Your task to perform on an android device: turn off javascript in the chrome app Image 0: 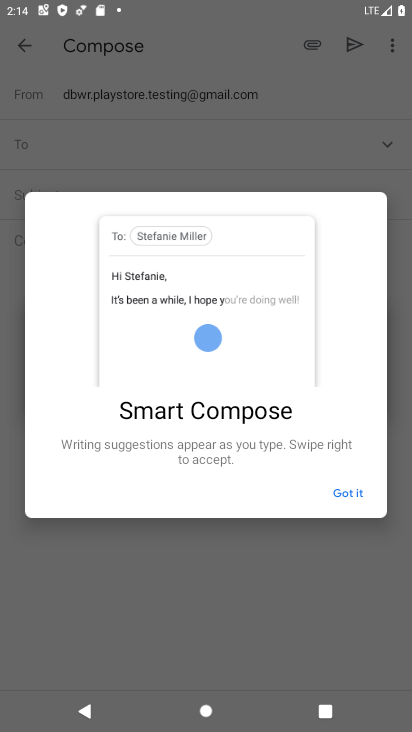
Step 0: press home button
Your task to perform on an android device: turn off javascript in the chrome app Image 1: 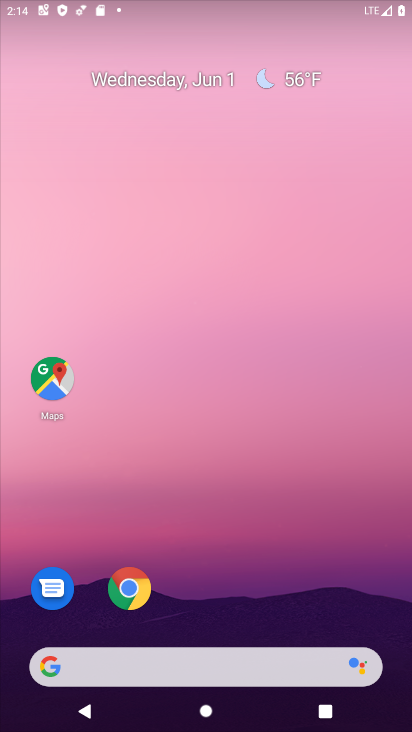
Step 1: click (155, 590)
Your task to perform on an android device: turn off javascript in the chrome app Image 2: 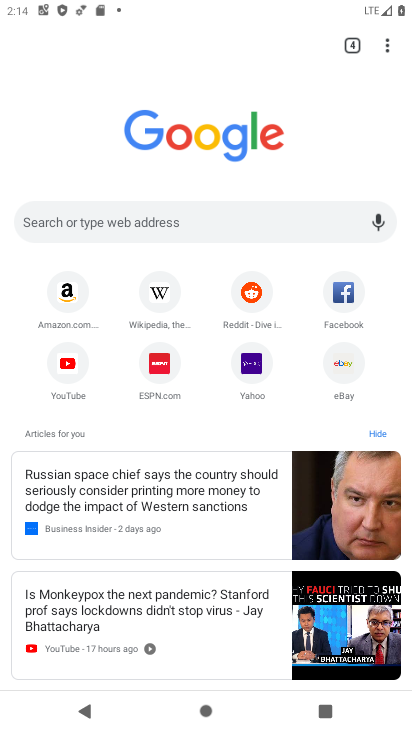
Step 2: click (382, 55)
Your task to perform on an android device: turn off javascript in the chrome app Image 3: 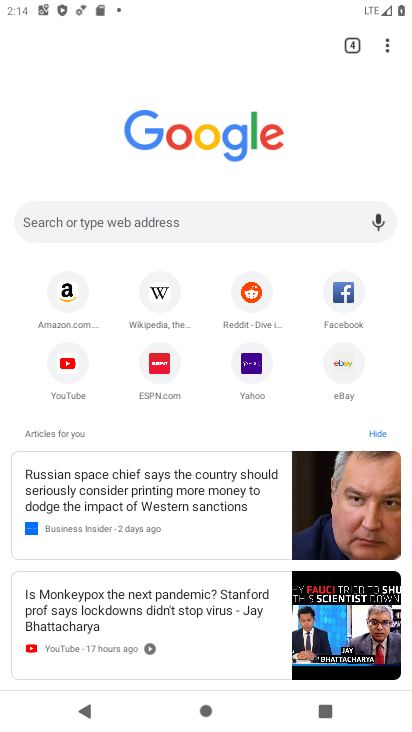
Step 3: click (378, 51)
Your task to perform on an android device: turn off javascript in the chrome app Image 4: 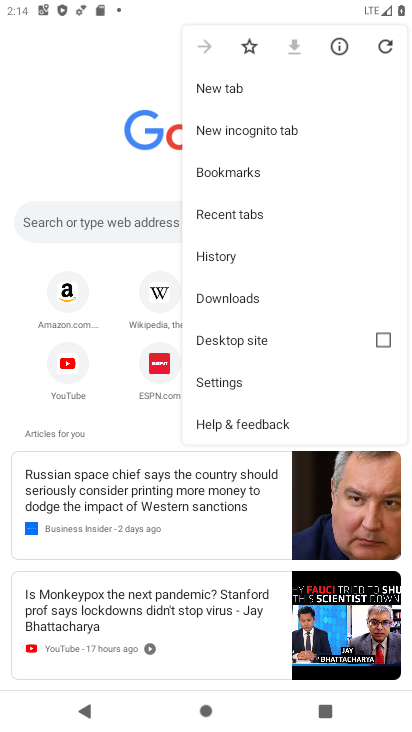
Step 4: click (222, 375)
Your task to perform on an android device: turn off javascript in the chrome app Image 5: 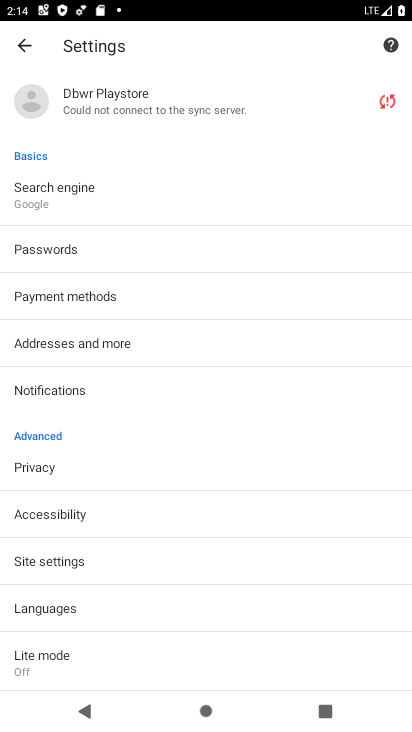
Step 5: click (69, 572)
Your task to perform on an android device: turn off javascript in the chrome app Image 6: 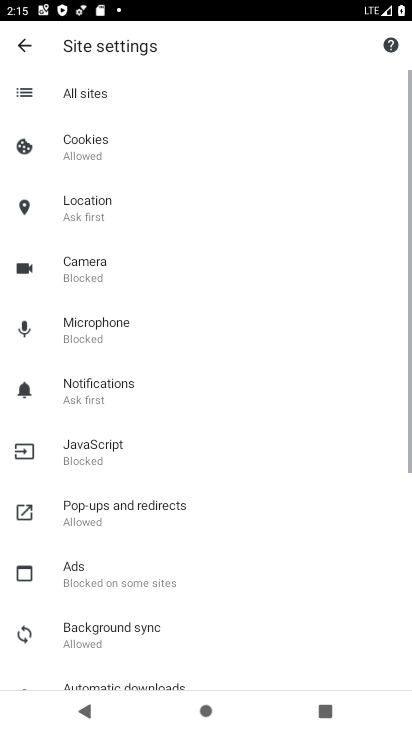
Step 6: click (120, 450)
Your task to perform on an android device: turn off javascript in the chrome app Image 7: 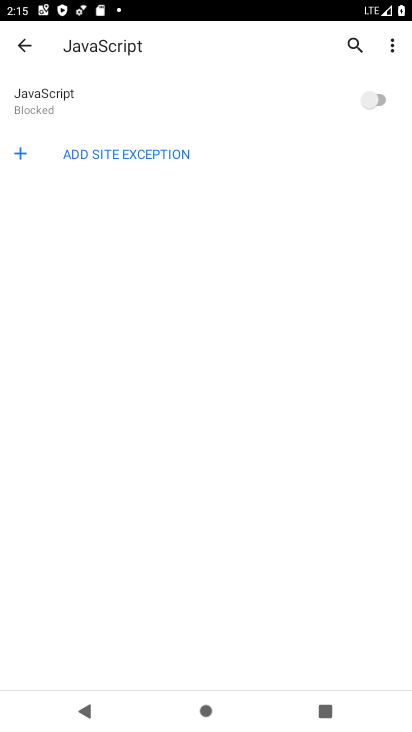
Step 7: task complete